Your task to perform on an android device: Is it going to rain tomorrow? Image 0: 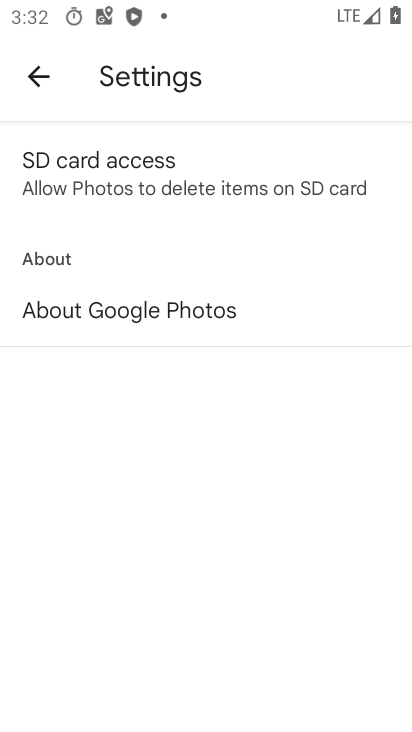
Step 0: press home button
Your task to perform on an android device: Is it going to rain tomorrow? Image 1: 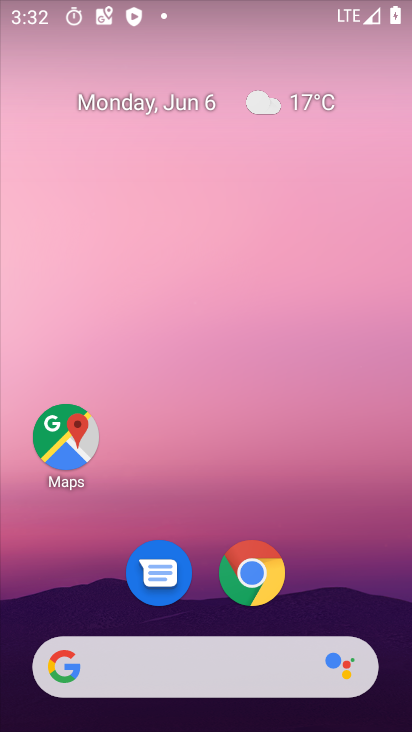
Step 1: click (284, 90)
Your task to perform on an android device: Is it going to rain tomorrow? Image 2: 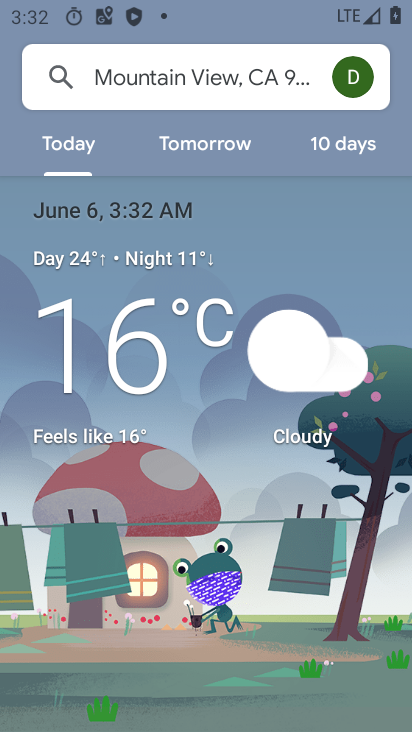
Step 2: click (216, 141)
Your task to perform on an android device: Is it going to rain tomorrow? Image 3: 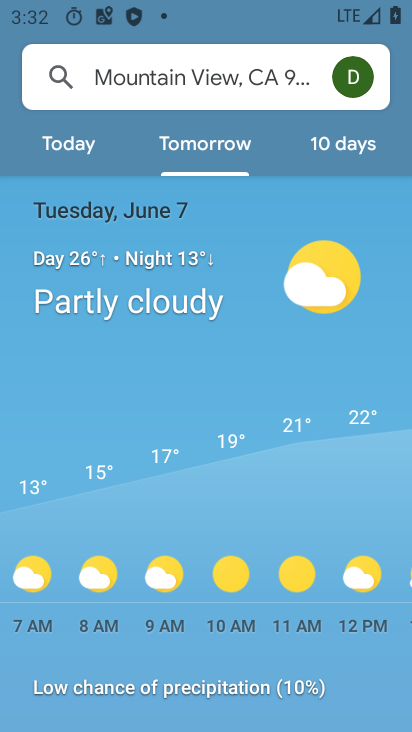
Step 3: task complete